Your task to perform on an android device: open sync settings in chrome Image 0: 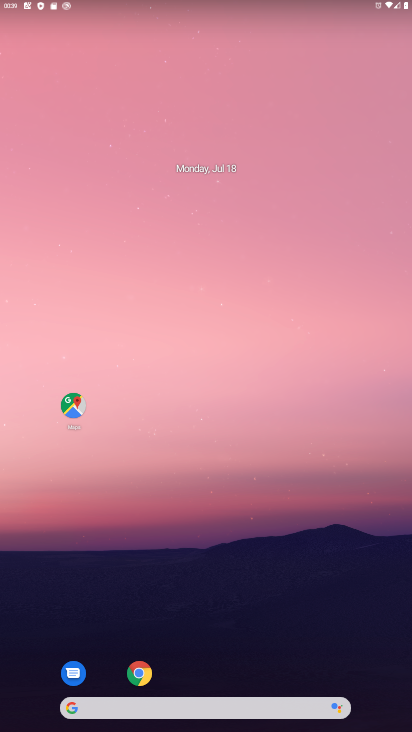
Step 0: click (165, 674)
Your task to perform on an android device: open sync settings in chrome Image 1: 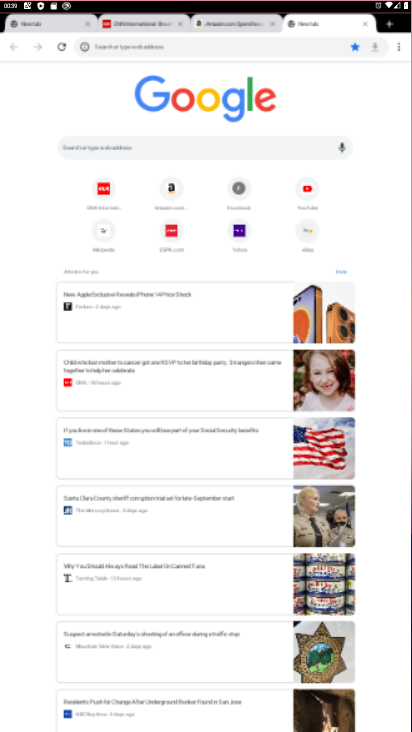
Step 1: click (145, 674)
Your task to perform on an android device: open sync settings in chrome Image 2: 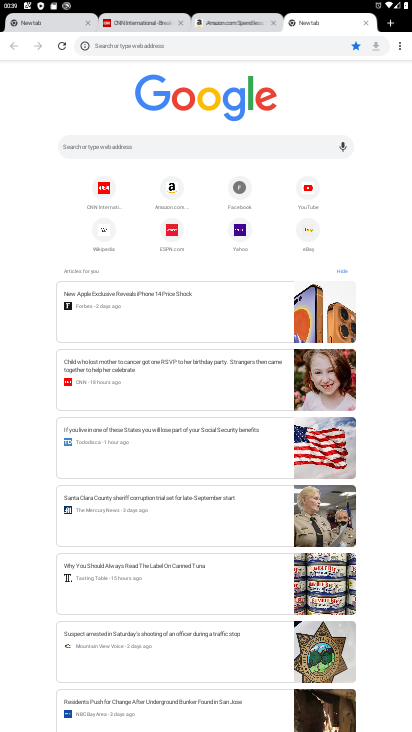
Step 2: click (405, 48)
Your task to perform on an android device: open sync settings in chrome Image 3: 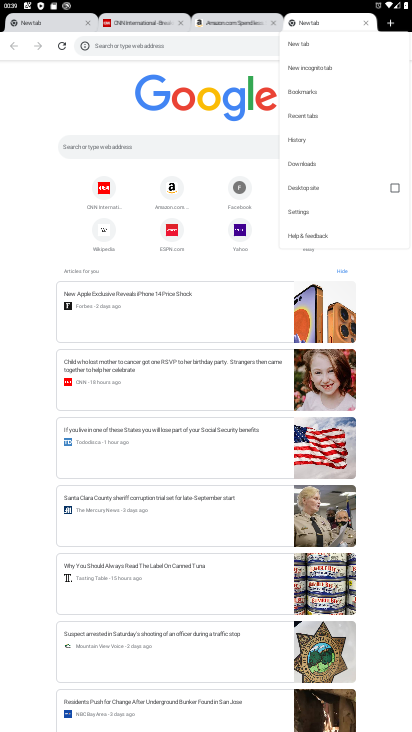
Step 3: click (314, 202)
Your task to perform on an android device: open sync settings in chrome Image 4: 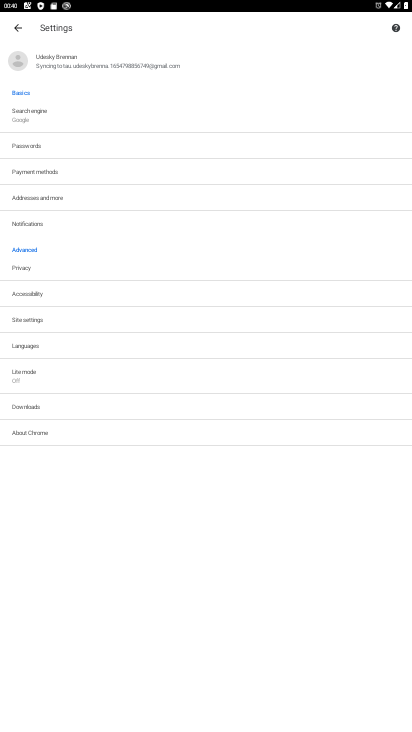
Step 4: click (40, 83)
Your task to perform on an android device: open sync settings in chrome Image 5: 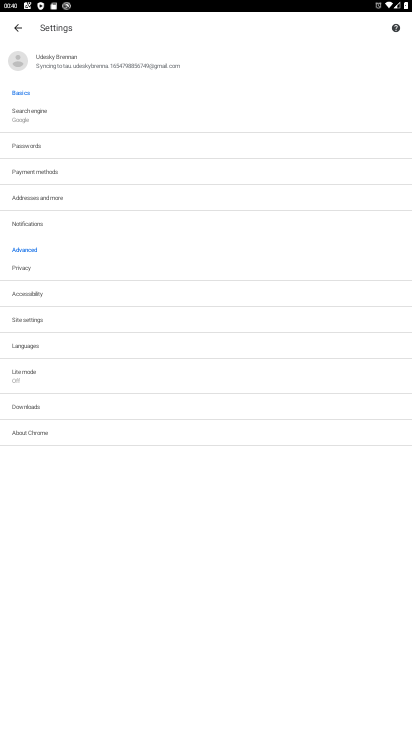
Step 5: task complete